Your task to perform on an android device: turn on data saver in the chrome app Image 0: 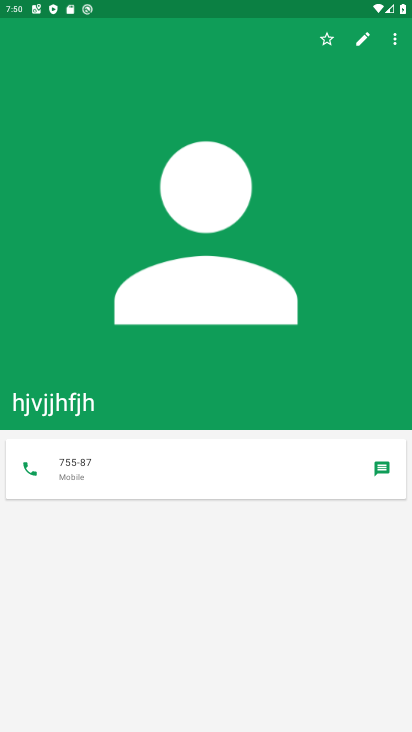
Step 0: press home button
Your task to perform on an android device: turn on data saver in the chrome app Image 1: 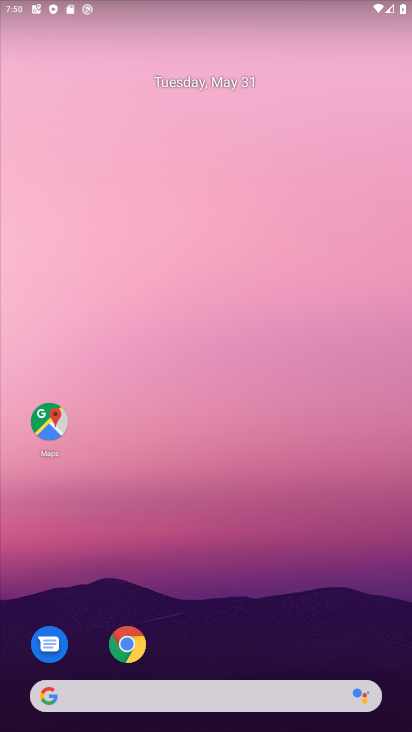
Step 1: click (133, 650)
Your task to perform on an android device: turn on data saver in the chrome app Image 2: 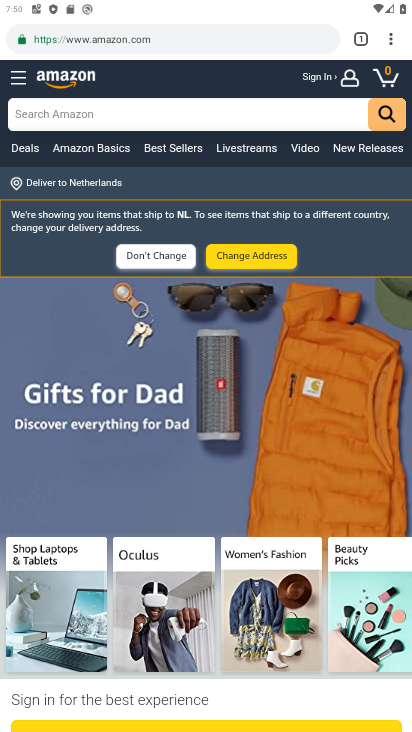
Step 2: click (391, 36)
Your task to perform on an android device: turn on data saver in the chrome app Image 3: 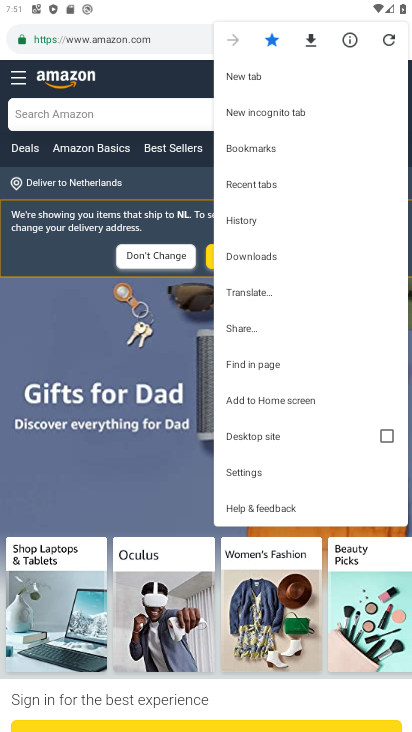
Step 3: click (259, 468)
Your task to perform on an android device: turn on data saver in the chrome app Image 4: 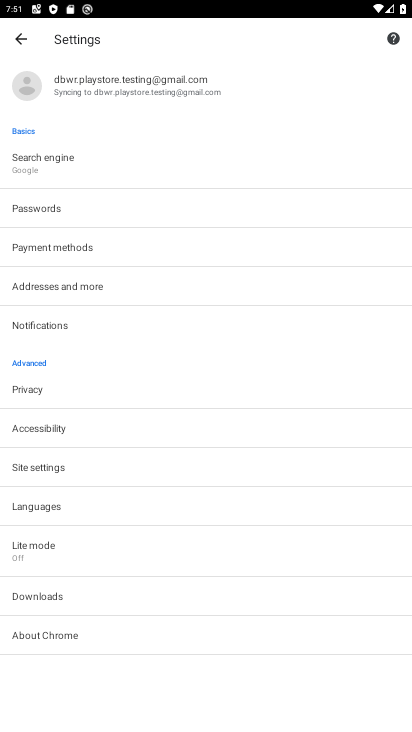
Step 4: click (60, 549)
Your task to perform on an android device: turn on data saver in the chrome app Image 5: 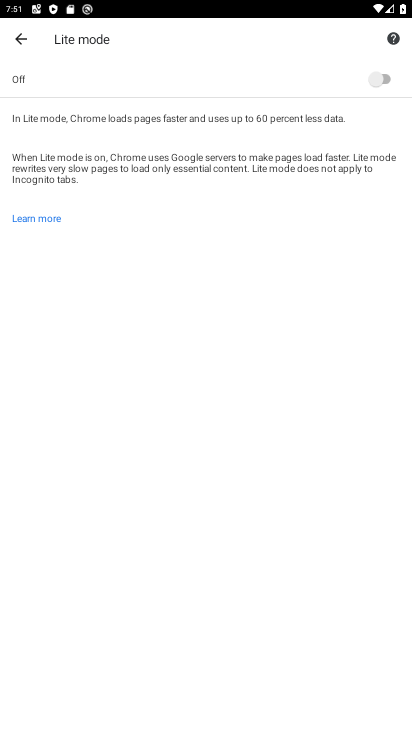
Step 5: click (384, 85)
Your task to perform on an android device: turn on data saver in the chrome app Image 6: 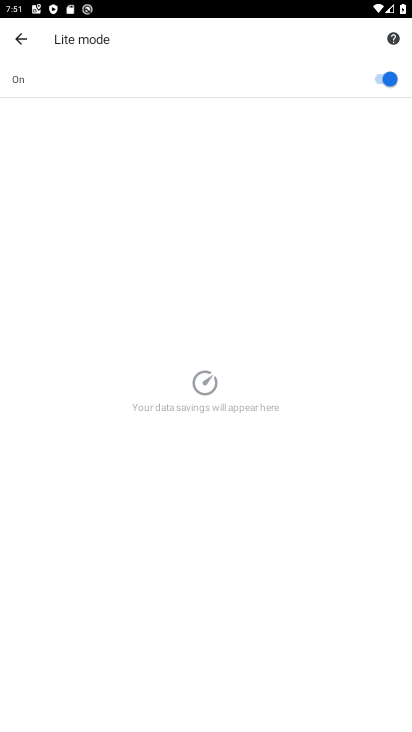
Step 6: task complete